Your task to perform on an android device: toggle location history Image 0: 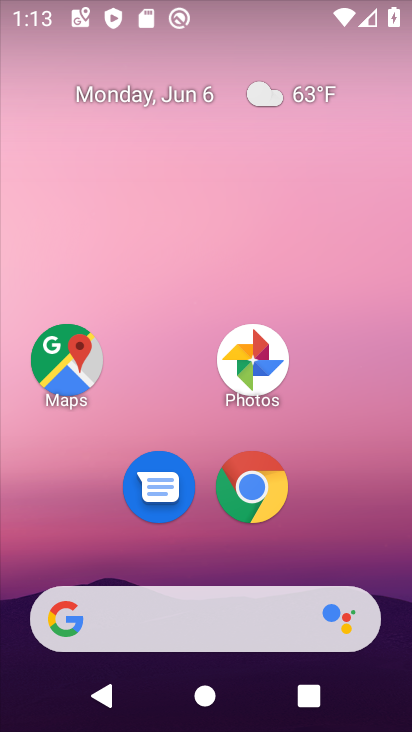
Step 0: drag from (103, 540) to (201, 56)
Your task to perform on an android device: toggle location history Image 1: 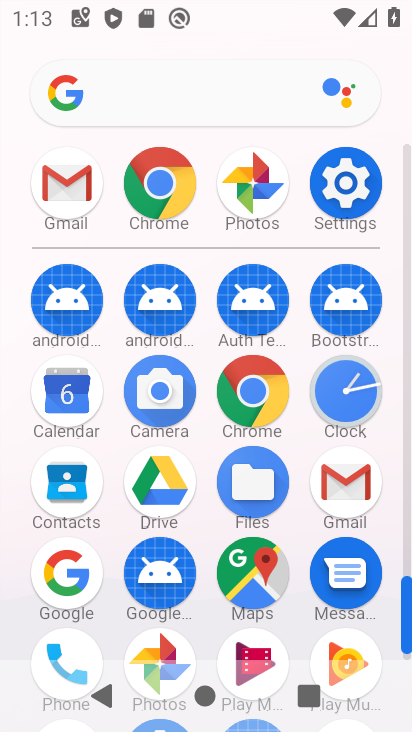
Step 1: drag from (222, 637) to (287, 214)
Your task to perform on an android device: toggle location history Image 2: 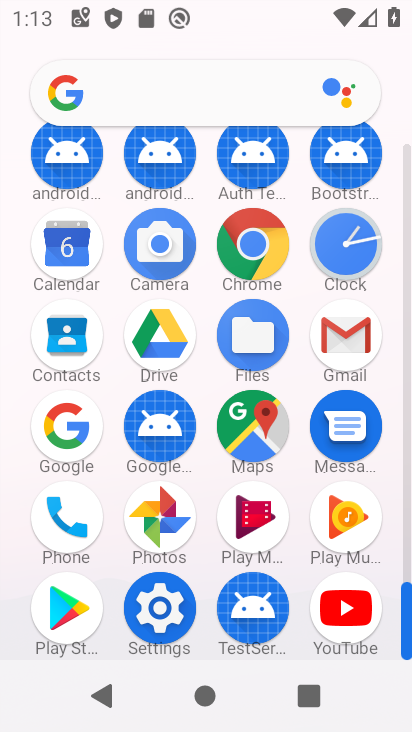
Step 2: click (171, 602)
Your task to perform on an android device: toggle location history Image 3: 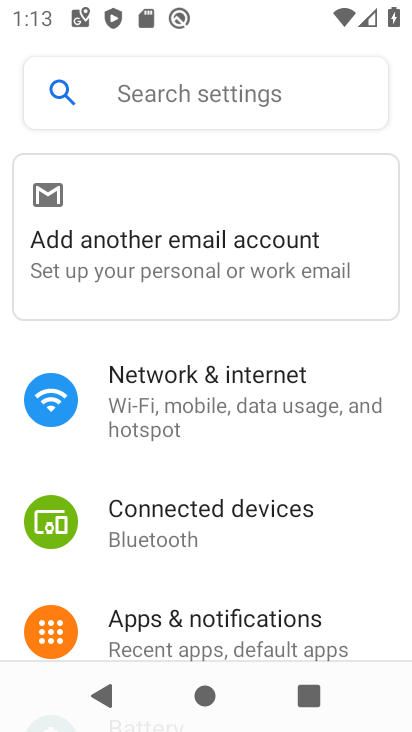
Step 3: drag from (136, 565) to (223, 200)
Your task to perform on an android device: toggle location history Image 4: 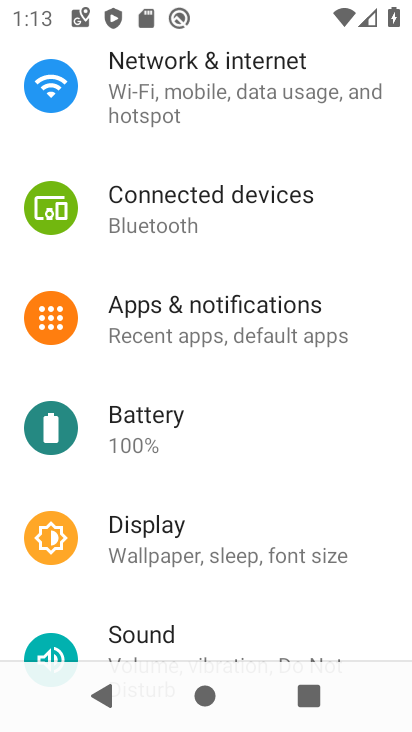
Step 4: drag from (200, 603) to (304, 148)
Your task to perform on an android device: toggle location history Image 5: 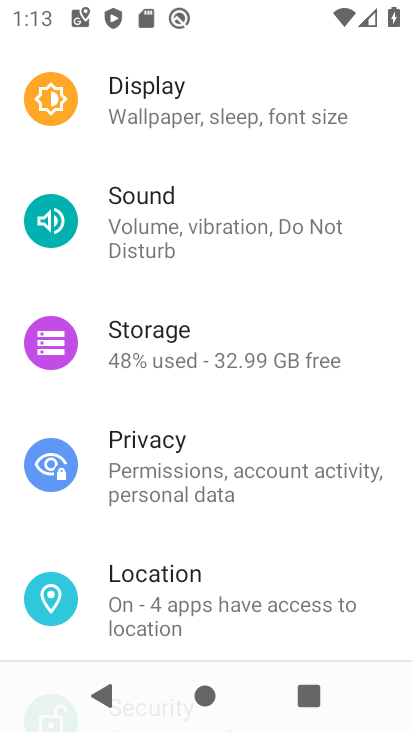
Step 5: click (134, 621)
Your task to perform on an android device: toggle location history Image 6: 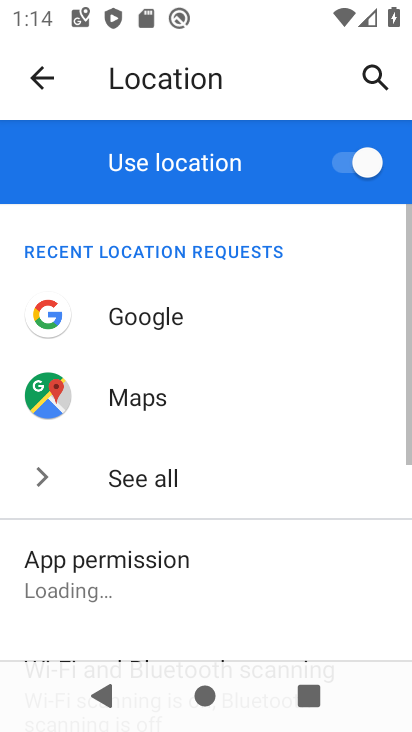
Step 6: drag from (251, 584) to (335, 248)
Your task to perform on an android device: toggle location history Image 7: 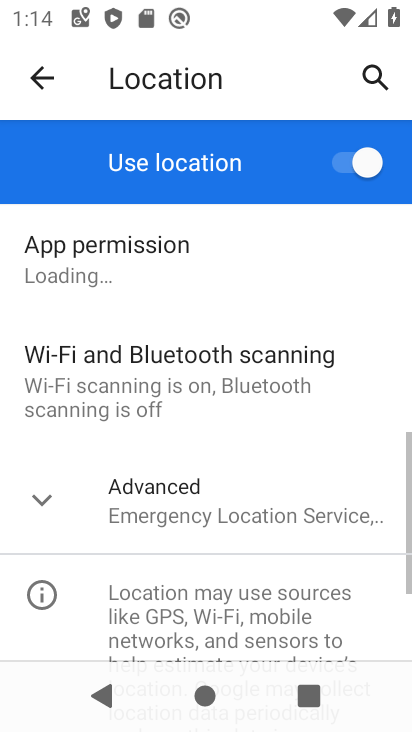
Step 7: click (234, 549)
Your task to perform on an android device: toggle location history Image 8: 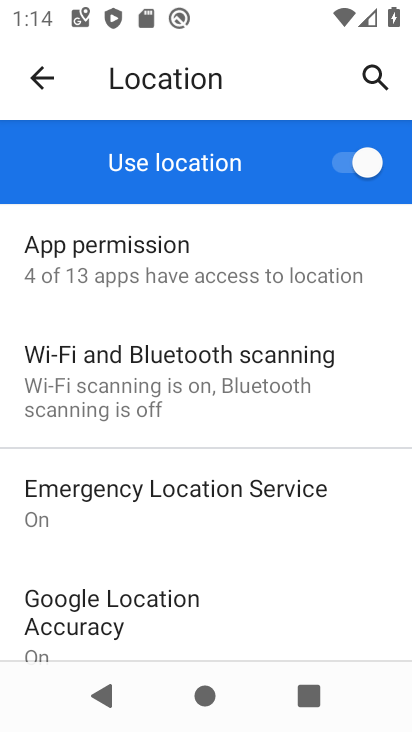
Step 8: drag from (167, 568) to (251, 178)
Your task to perform on an android device: toggle location history Image 9: 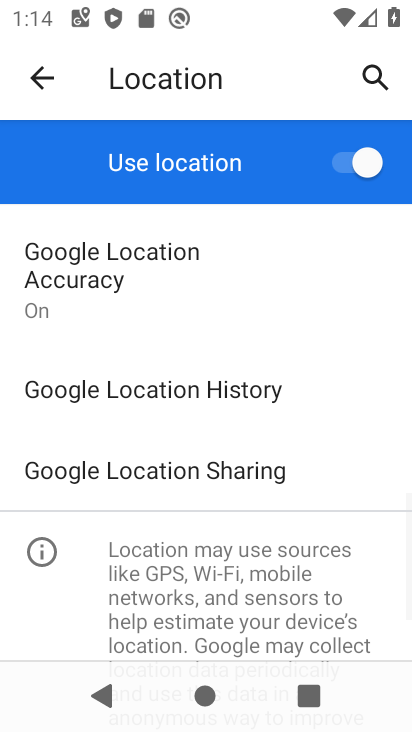
Step 9: click (194, 378)
Your task to perform on an android device: toggle location history Image 10: 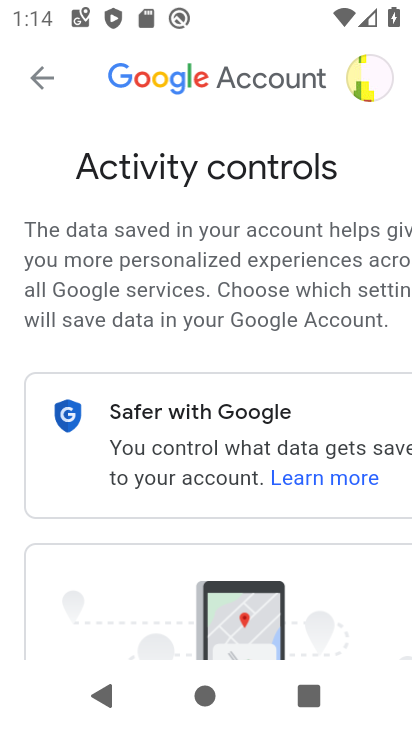
Step 10: drag from (170, 451) to (319, 14)
Your task to perform on an android device: toggle location history Image 11: 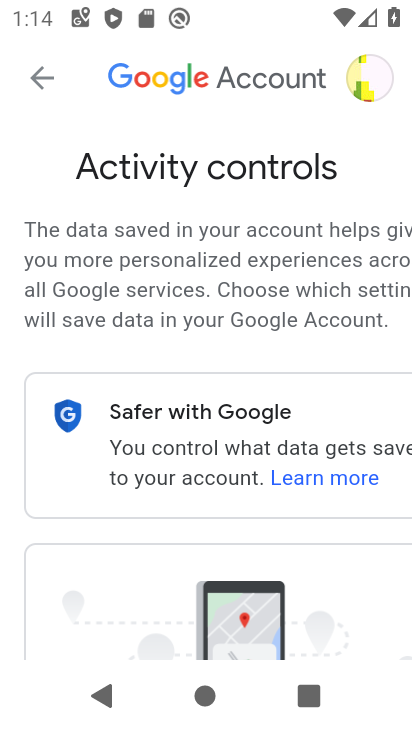
Step 11: drag from (190, 557) to (307, 16)
Your task to perform on an android device: toggle location history Image 12: 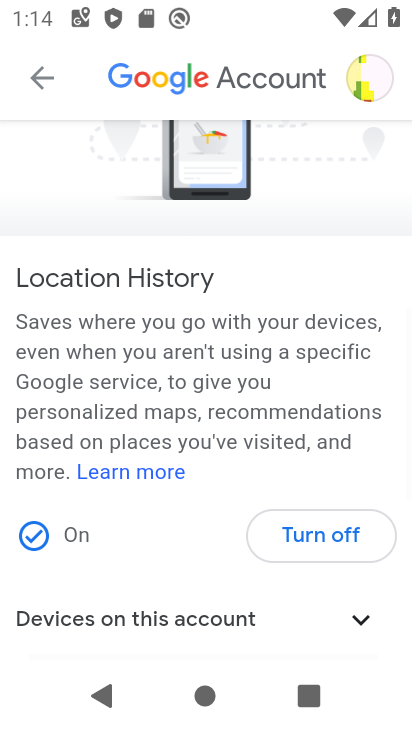
Step 12: click (362, 542)
Your task to perform on an android device: toggle location history Image 13: 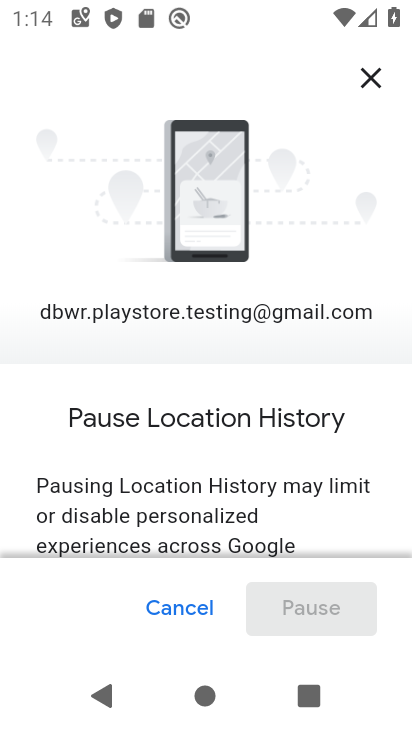
Step 13: drag from (315, 564) to (356, 29)
Your task to perform on an android device: toggle location history Image 14: 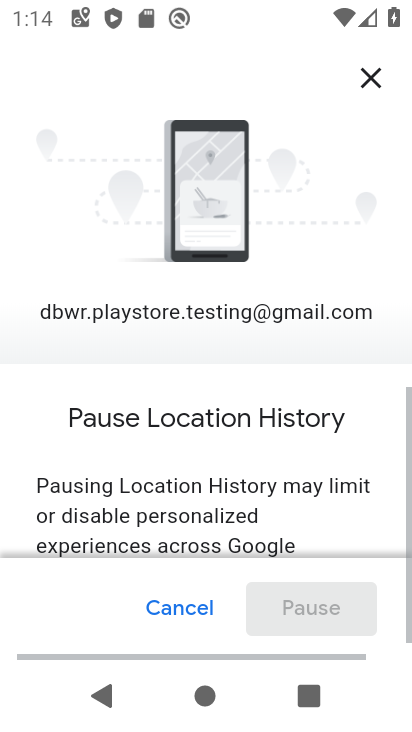
Step 14: drag from (109, 647) to (227, 51)
Your task to perform on an android device: toggle location history Image 15: 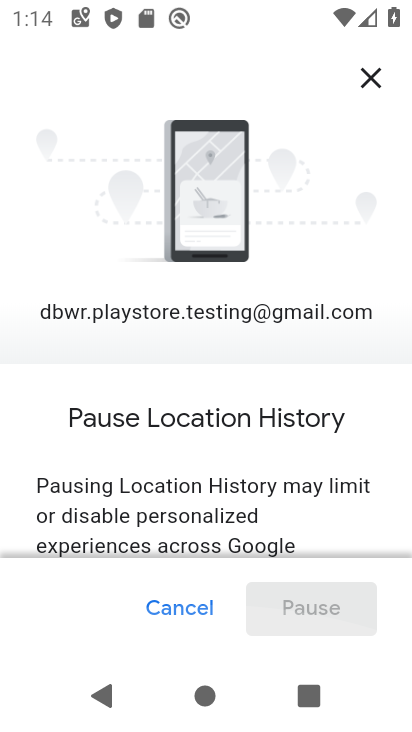
Step 15: drag from (214, 391) to (282, 22)
Your task to perform on an android device: toggle location history Image 16: 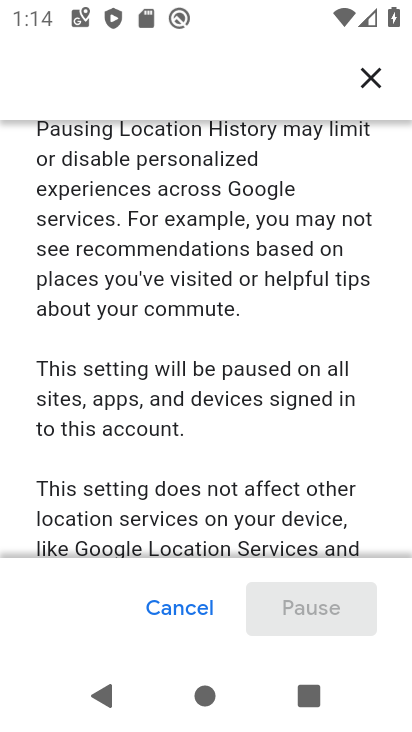
Step 16: drag from (173, 466) to (269, 78)
Your task to perform on an android device: toggle location history Image 17: 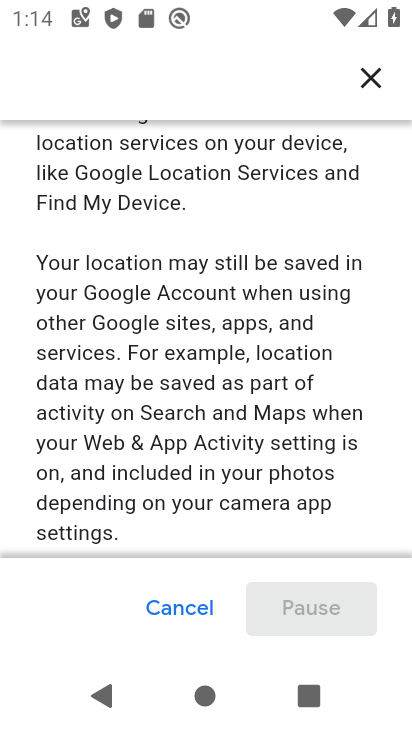
Step 17: drag from (178, 569) to (280, 191)
Your task to perform on an android device: toggle location history Image 18: 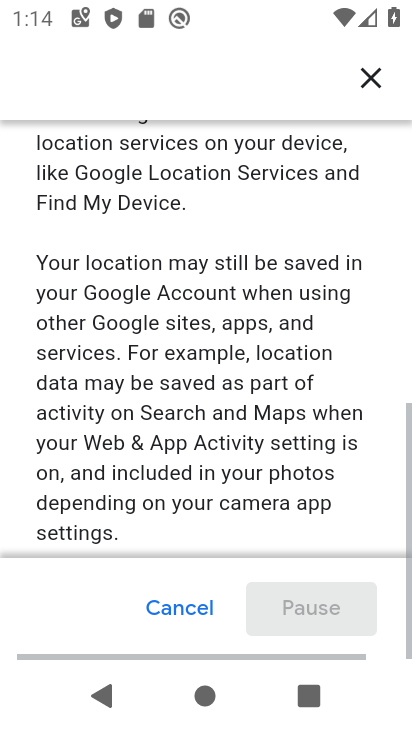
Step 18: drag from (134, 514) to (198, 192)
Your task to perform on an android device: toggle location history Image 19: 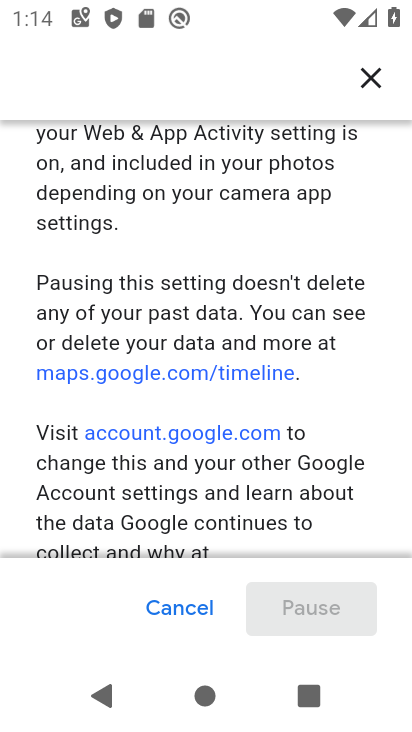
Step 19: drag from (107, 506) to (191, 133)
Your task to perform on an android device: toggle location history Image 20: 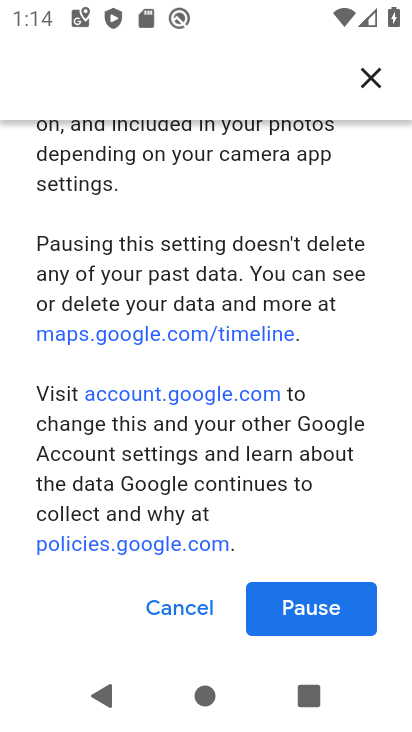
Step 20: click (293, 618)
Your task to perform on an android device: toggle location history Image 21: 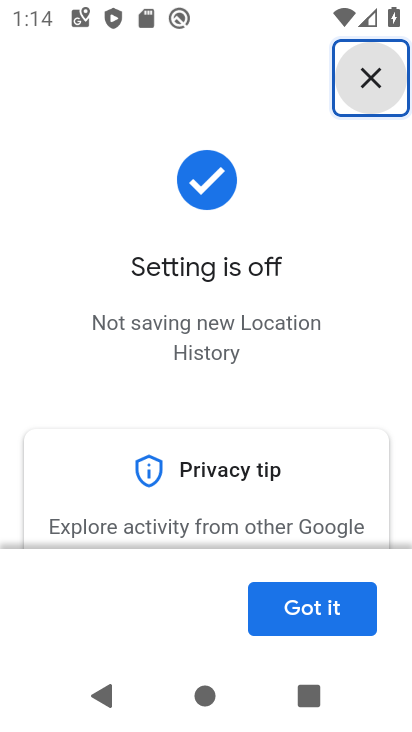
Step 21: click (292, 615)
Your task to perform on an android device: toggle location history Image 22: 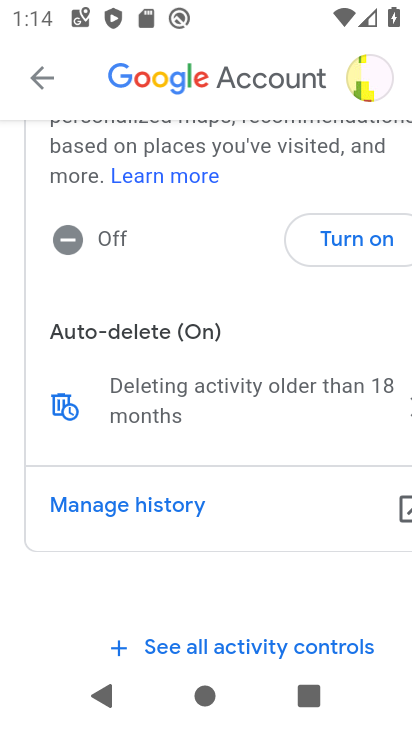
Step 22: task complete